Your task to perform on an android device: change the clock display to analog Image 0: 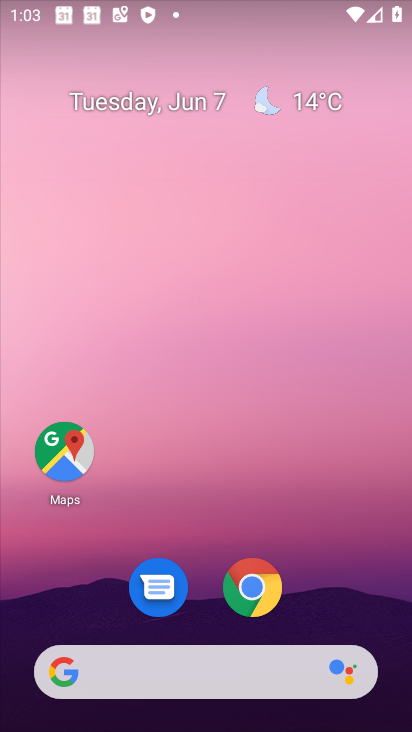
Step 0: drag from (247, 686) to (313, 21)
Your task to perform on an android device: change the clock display to analog Image 1: 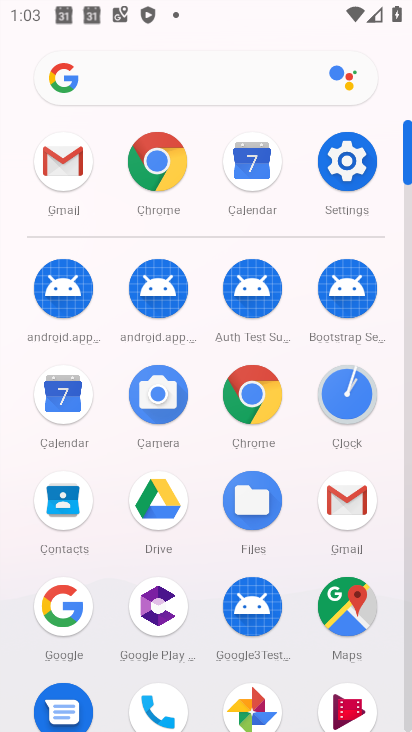
Step 1: click (367, 399)
Your task to perform on an android device: change the clock display to analog Image 2: 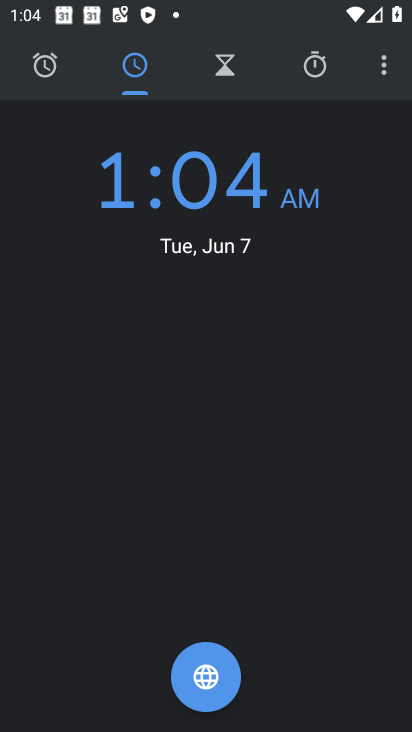
Step 2: click (379, 88)
Your task to perform on an android device: change the clock display to analog Image 3: 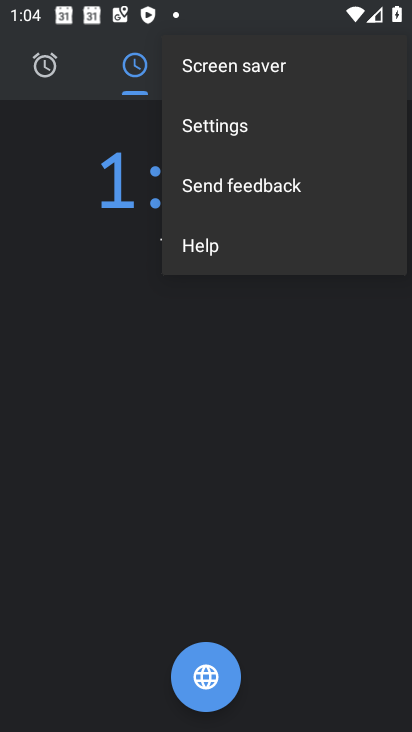
Step 3: click (267, 128)
Your task to perform on an android device: change the clock display to analog Image 4: 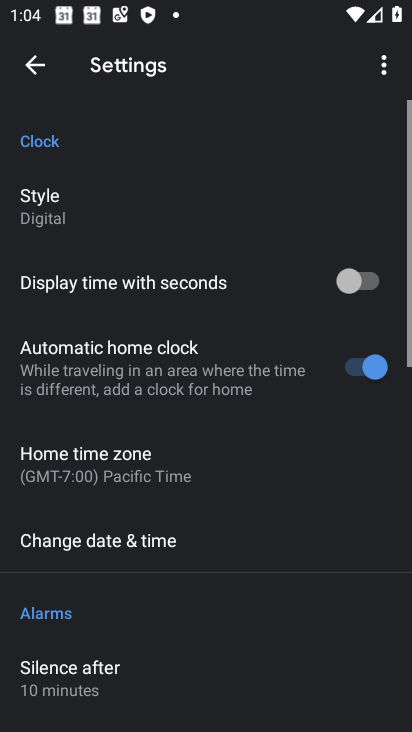
Step 4: click (107, 220)
Your task to perform on an android device: change the clock display to analog Image 5: 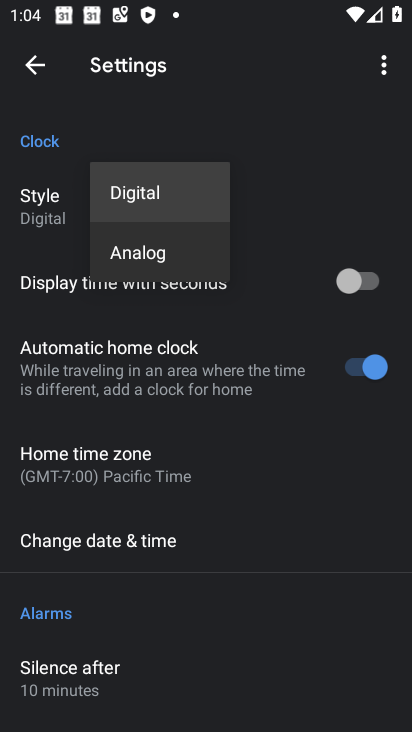
Step 5: click (133, 266)
Your task to perform on an android device: change the clock display to analog Image 6: 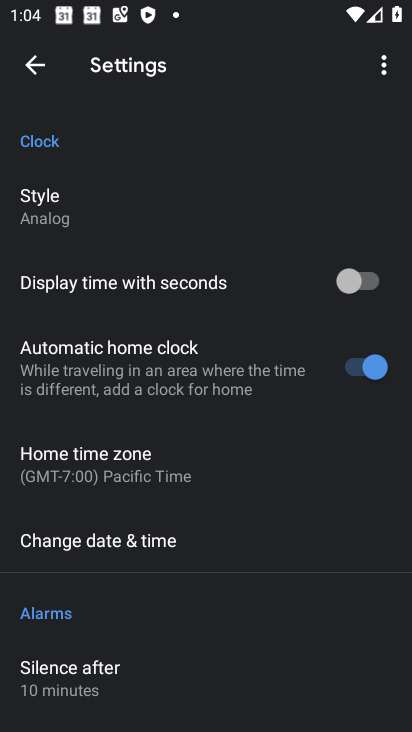
Step 6: task complete